Your task to perform on an android device: See recent photos Image 0: 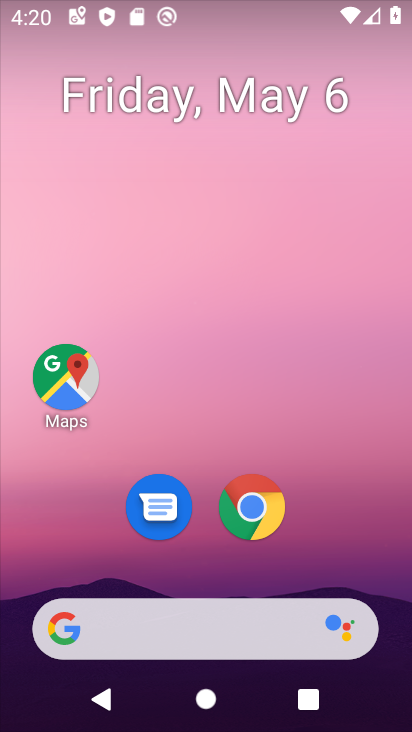
Step 0: drag from (337, 546) to (260, 131)
Your task to perform on an android device: See recent photos Image 1: 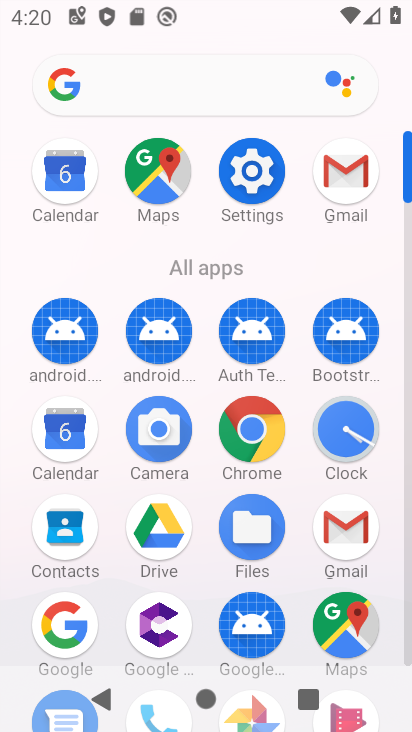
Step 1: drag from (290, 586) to (267, 246)
Your task to perform on an android device: See recent photos Image 2: 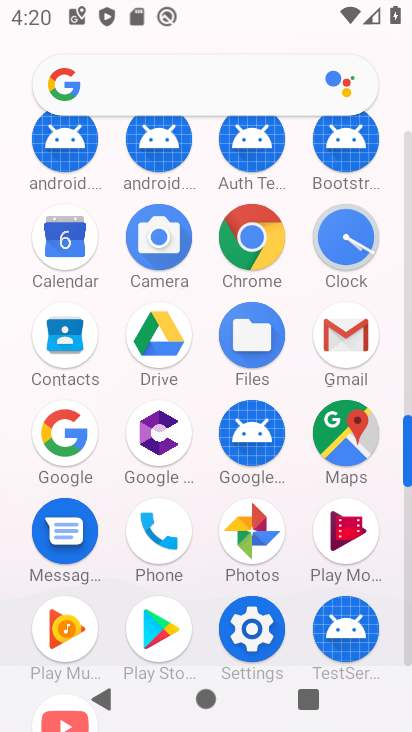
Step 2: click (244, 531)
Your task to perform on an android device: See recent photos Image 3: 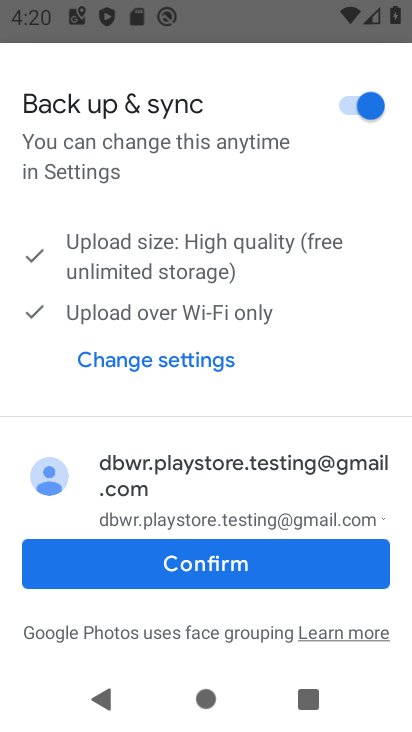
Step 3: click (198, 567)
Your task to perform on an android device: See recent photos Image 4: 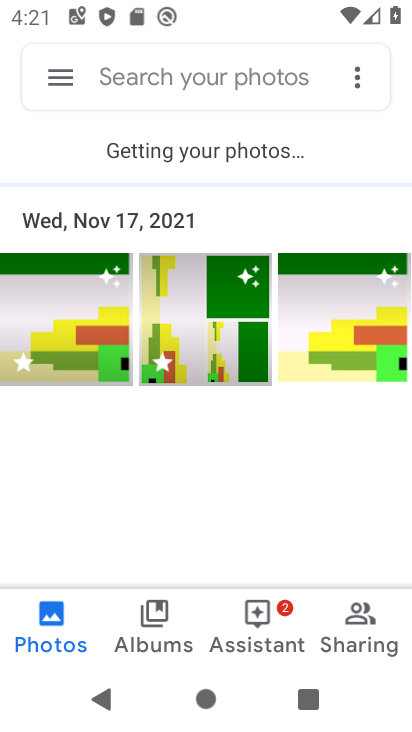
Step 4: task complete